Your task to perform on an android device: toggle data saver in the chrome app Image 0: 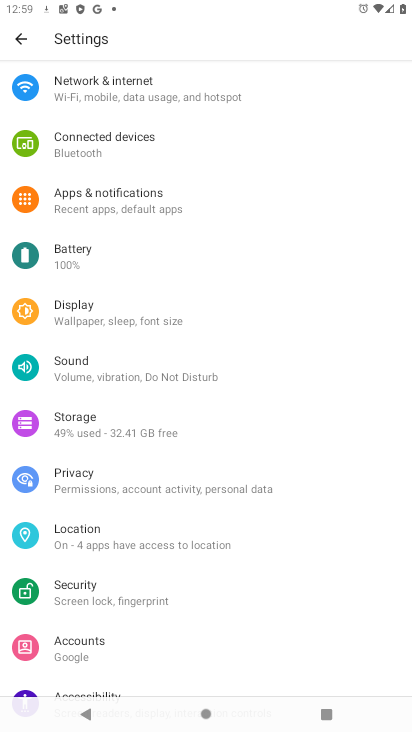
Step 0: press home button
Your task to perform on an android device: toggle data saver in the chrome app Image 1: 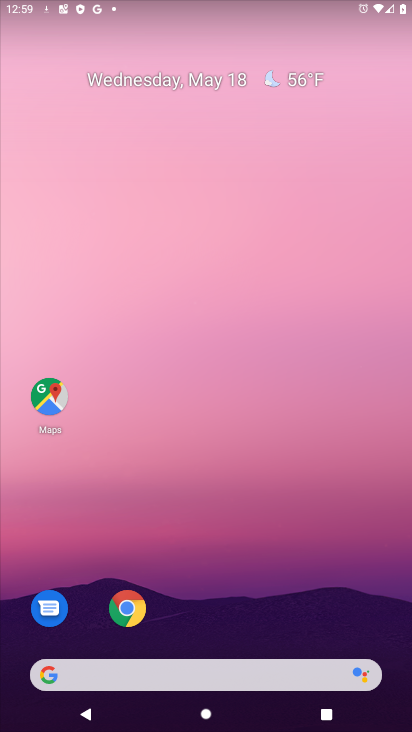
Step 1: drag from (239, 680) to (281, 183)
Your task to perform on an android device: toggle data saver in the chrome app Image 2: 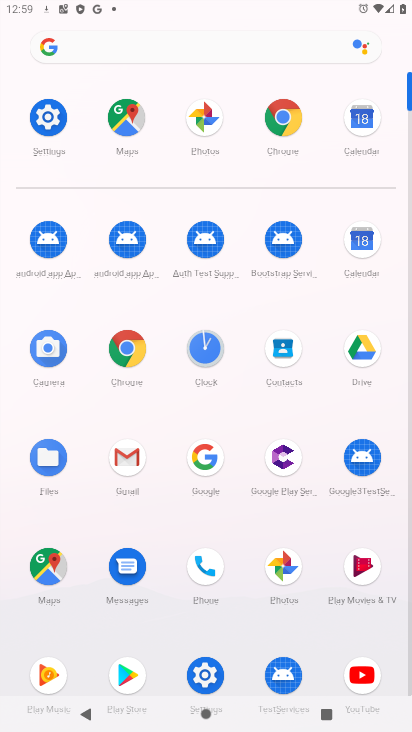
Step 2: click (278, 111)
Your task to perform on an android device: toggle data saver in the chrome app Image 3: 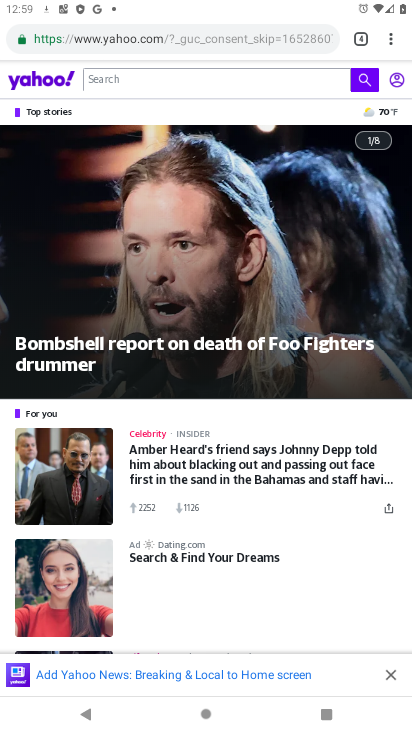
Step 3: click (383, 40)
Your task to perform on an android device: toggle data saver in the chrome app Image 4: 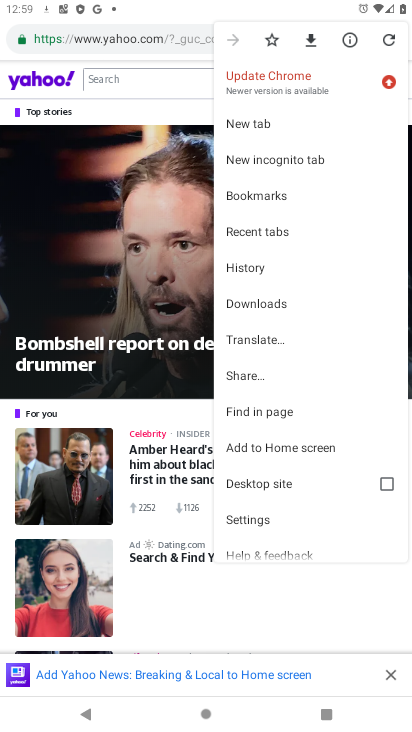
Step 4: click (265, 524)
Your task to perform on an android device: toggle data saver in the chrome app Image 5: 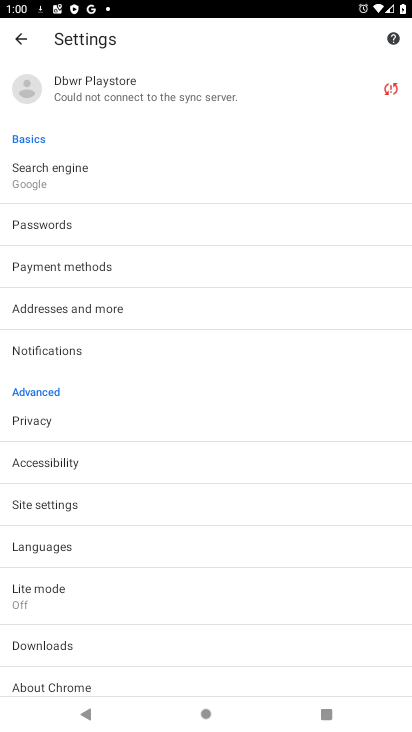
Step 5: click (53, 590)
Your task to perform on an android device: toggle data saver in the chrome app Image 6: 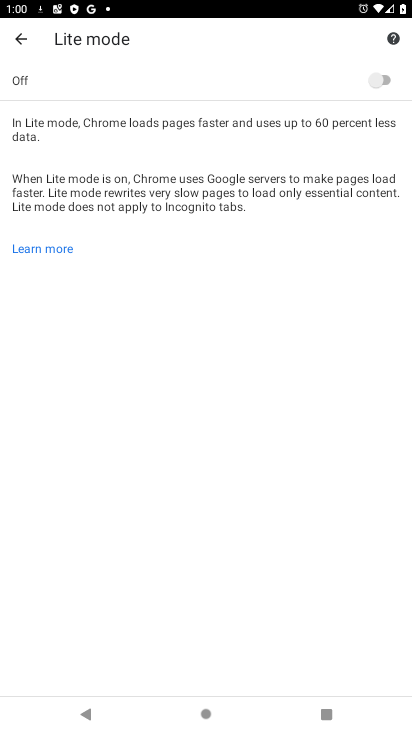
Step 6: click (364, 83)
Your task to perform on an android device: toggle data saver in the chrome app Image 7: 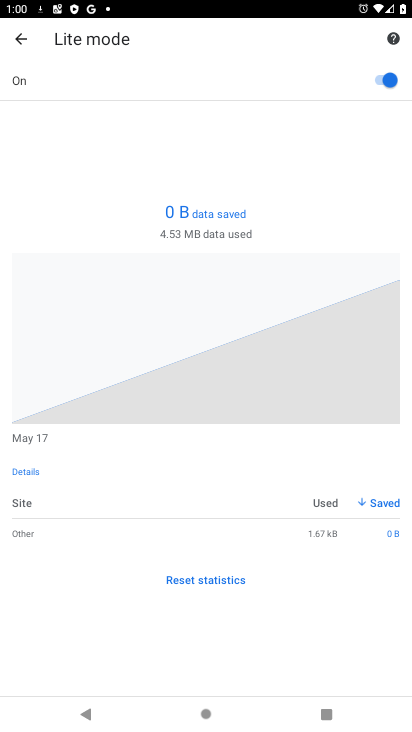
Step 7: click (375, 82)
Your task to perform on an android device: toggle data saver in the chrome app Image 8: 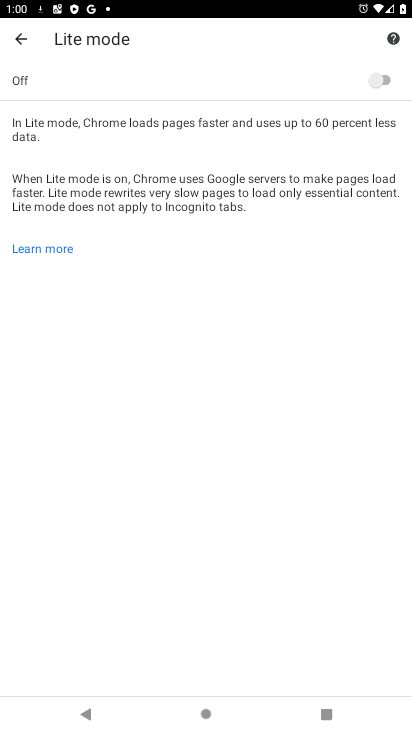
Step 8: task complete